Your task to perform on an android device: turn off sleep mode Image 0: 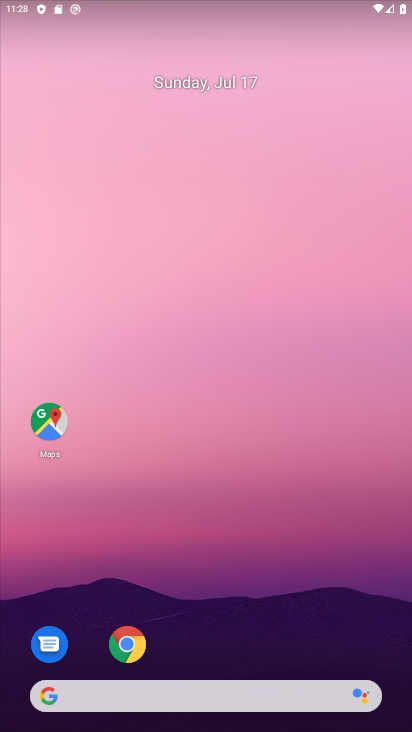
Step 0: drag from (409, 474) to (303, 78)
Your task to perform on an android device: turn off sleep mode Image 1: 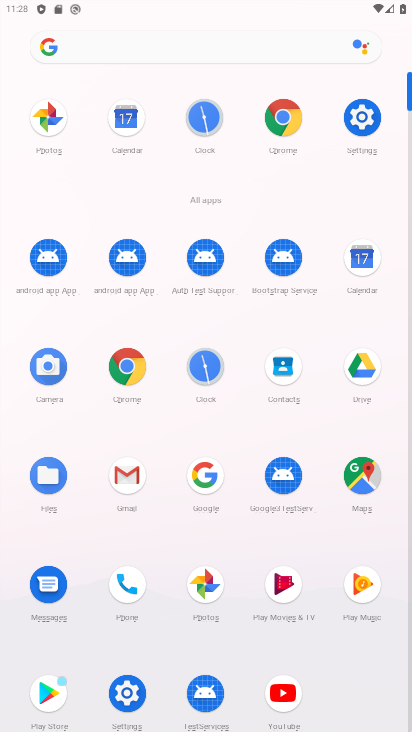
Step 1: click (347, 123)
Your task to perform on an android device: turn off sleep mode Image 2: 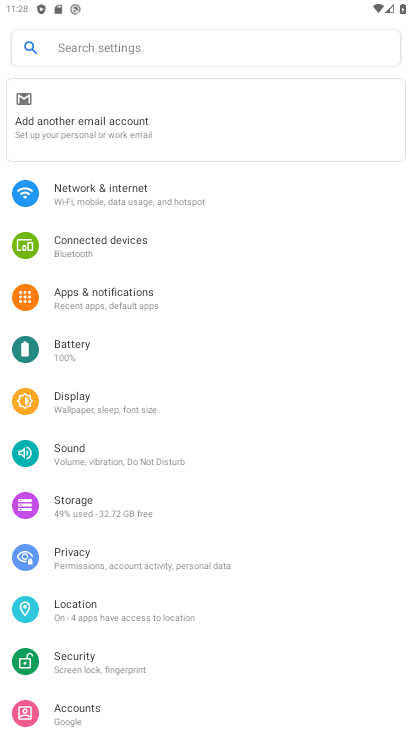
Step 2: click (69, 390)
Your task to perform on an android device: turn off sleep mode Image 3: 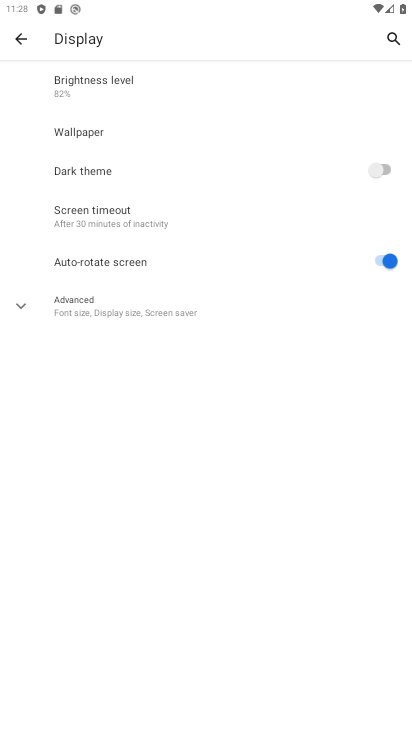
Step 3: click (13, 303)
Your task to perform on an android device: turn off sleep mode Image 4: 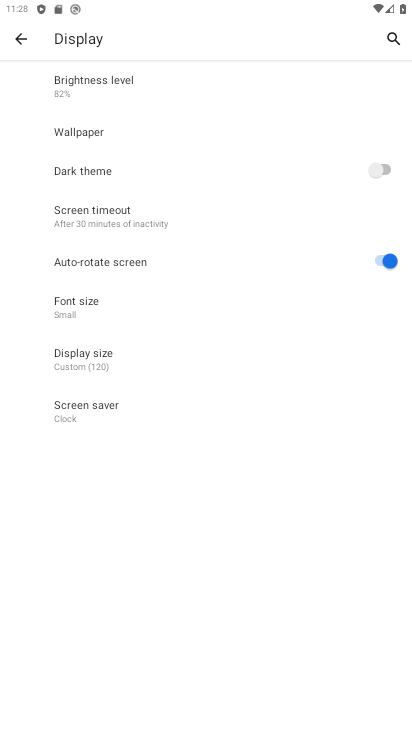
Step 4: click (75, 223)
Your task to perform on an android device: turn off sleep mode Image 5: 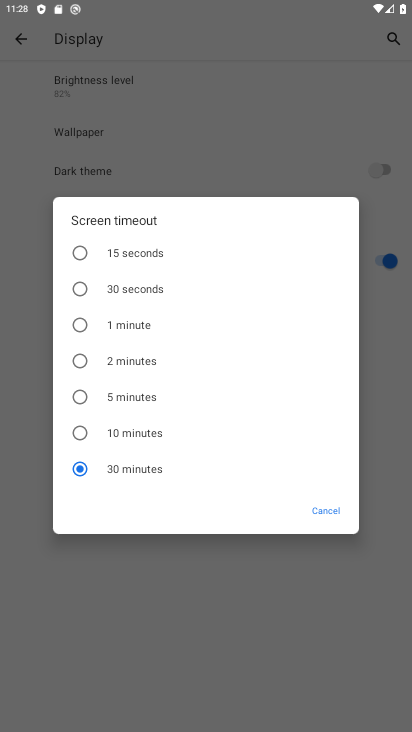
Step 5: task complete